Your task to perform on an android device: stop showing notifications on the lock screen Image 0: 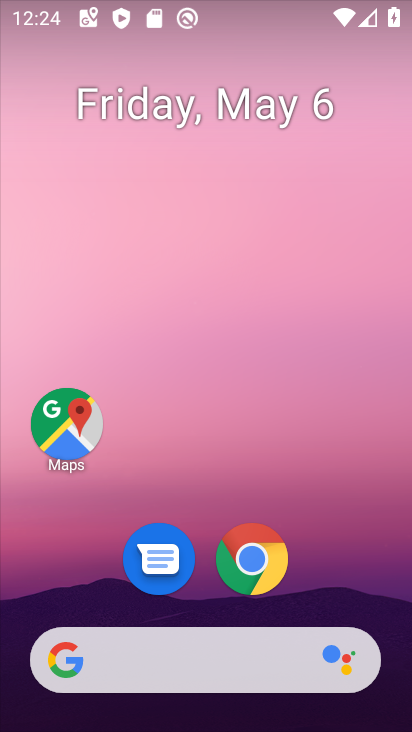
Step 0: drag from (338, 606) to (326, 130)
Your task to perform on an android device: stop showing notifications on the lock screen Image 1: 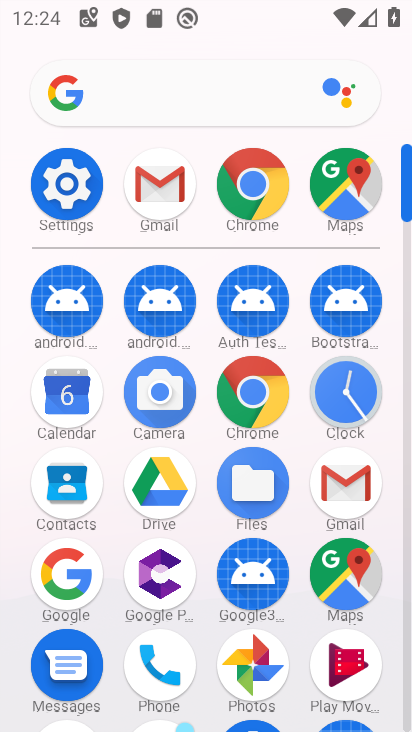
Step 1: click (74, 184)
Your task to perform on an android device: stop showing notifications on the lock screen Image 2: 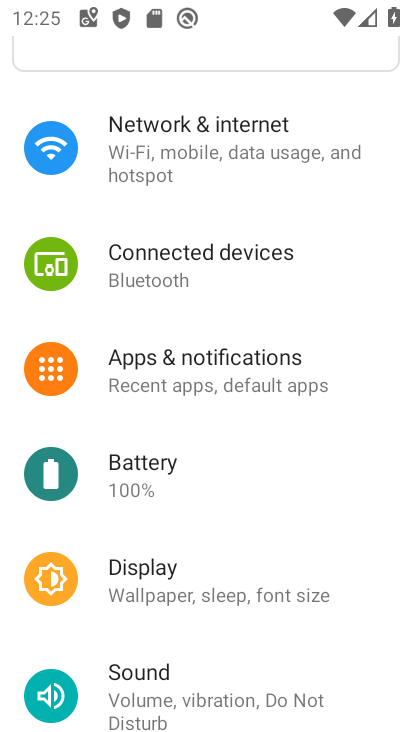
Step 2: click (199, 385)
Your task to perform on an android device: stop showing notifications on the lock screen Image 3: 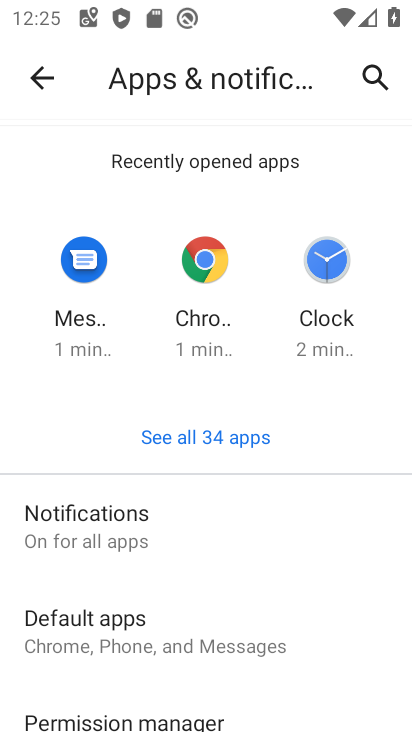
Step 3: click (129, 532)
Your task to perform on an android device: stop showing notifications on the lock screen Image 4: 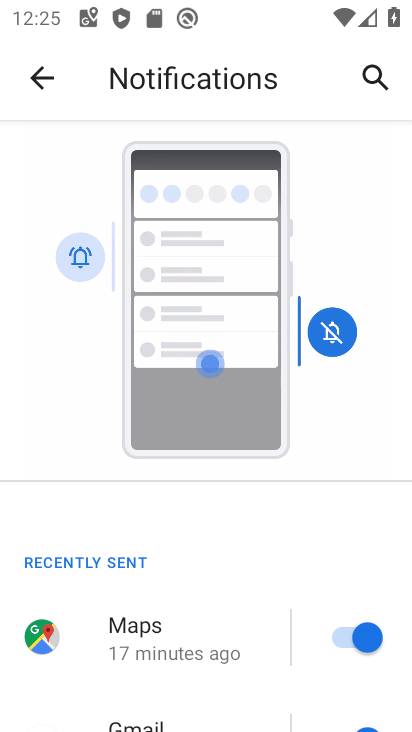
Step 4: drag from (159, 650) to (167, 371)
Your task to perform on an android device: stop showing notifications on the lock screen Image 5: 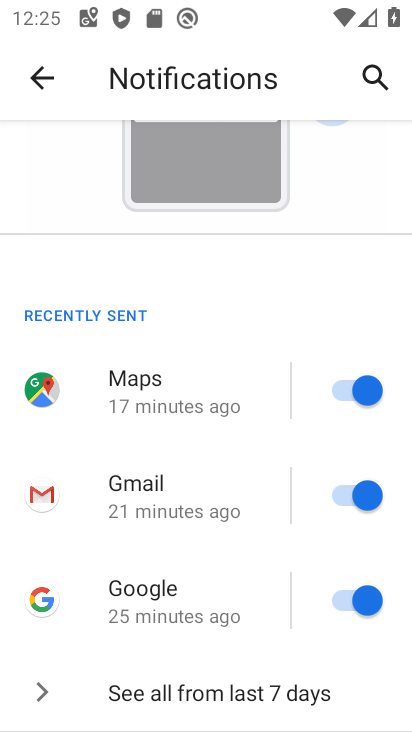
Step 5: drag from (174, 652) to (187, 330)
Your task to perform on an android device: stop showing notifications on the lock screen Image 6: 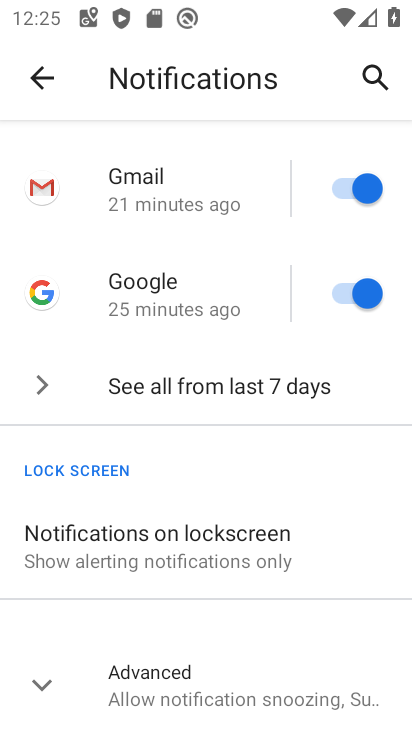
Step 6: click (155, 599)
Your task to perform on an android device: stop showing notifications on the lock screen Image 7: 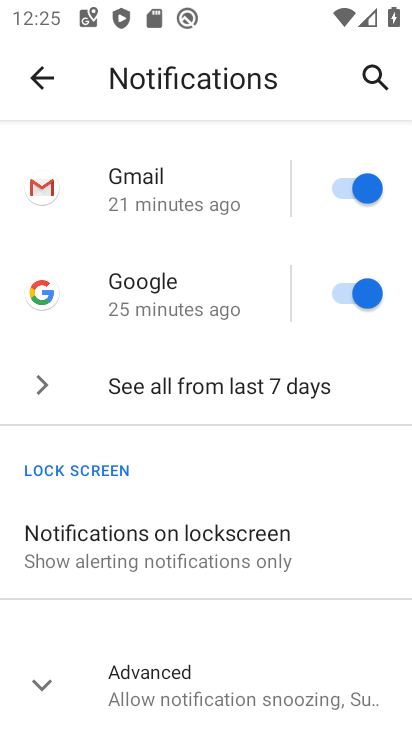
Step 7: click (149, 571)
Your task to perform on an android device: stop showing notifications on the lock screen Image 8: 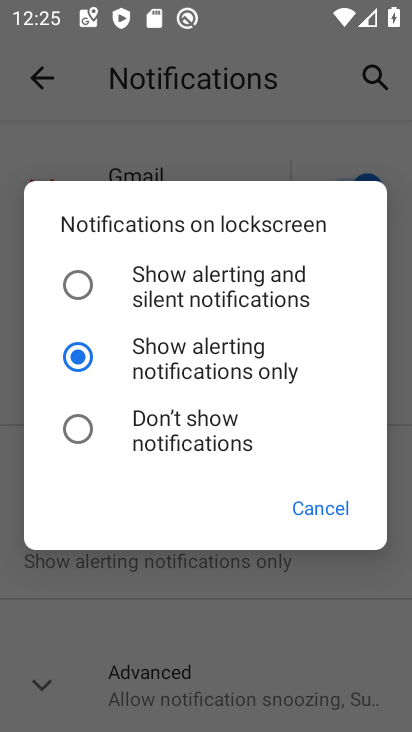
Step 8: click (127, 433)
Your task to perform on an android device: stop showing notifications on the lock screen Image 9: 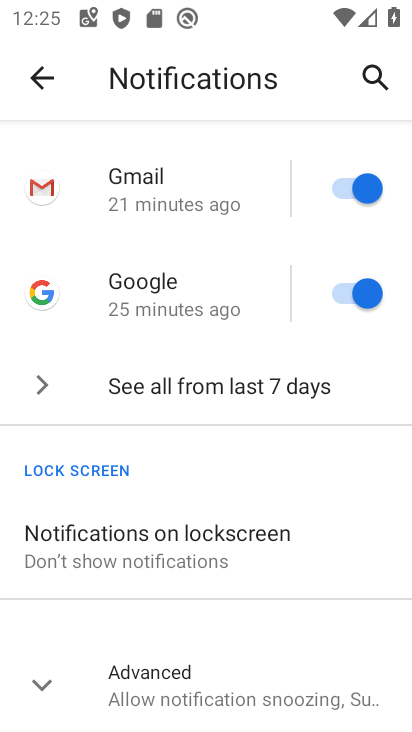
Step 9: task complete